Your task to perform on an android device: Go to Maps Image 0: 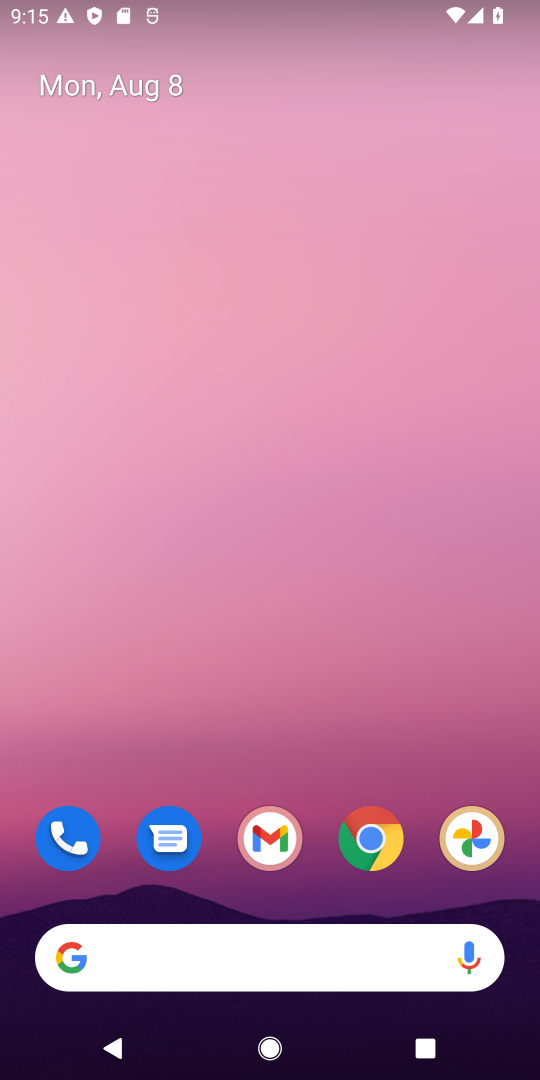
Step 0: press home button
Your task to perform on an android device: Go to Maps Image 1: 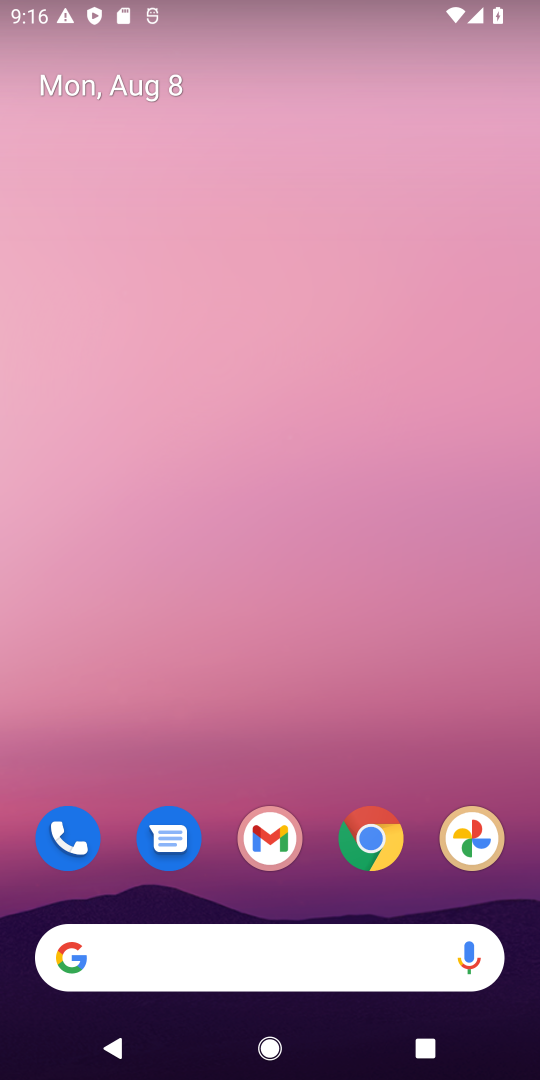
Step 1: click (307, 886)
Your task to perform on an android device: Go to Maps Image 2: 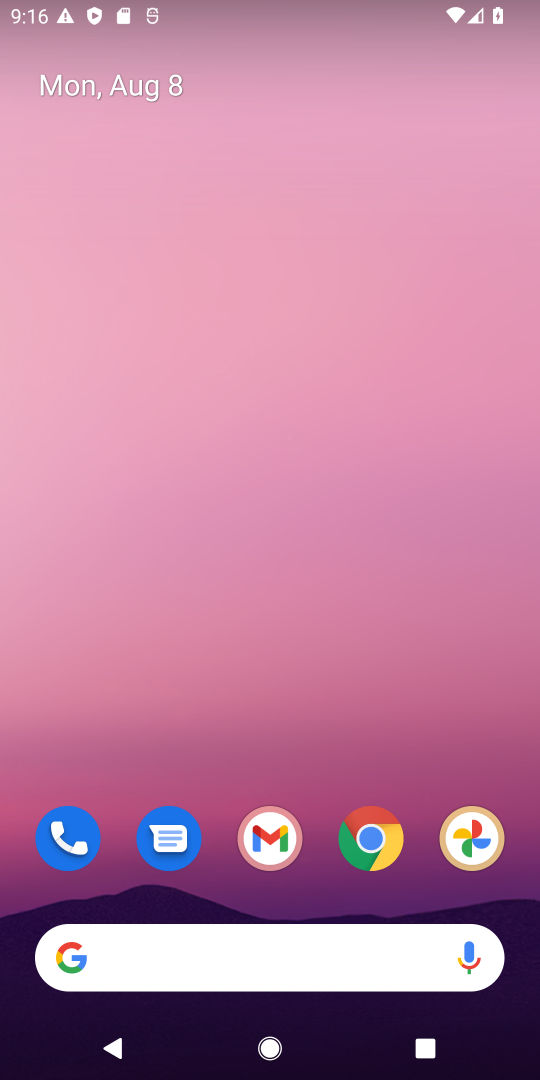
Step 2: drag from (226, 743) to (338, 169)
Your task to perform on an android device: Go to Maps Image 3: 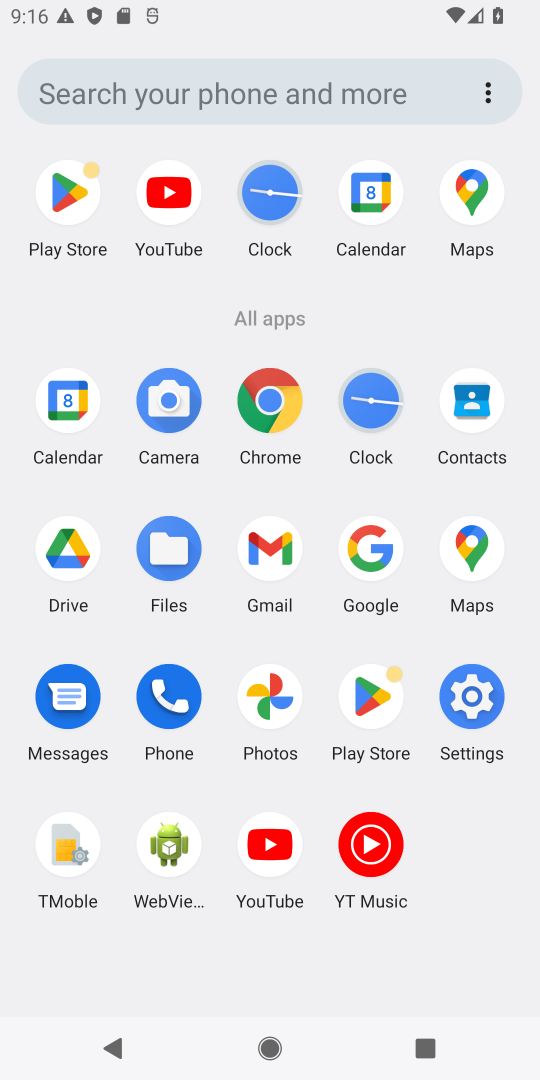
Step 3: click (474, 557)
Your task to perform on an android device: Go to Maps Image 4: 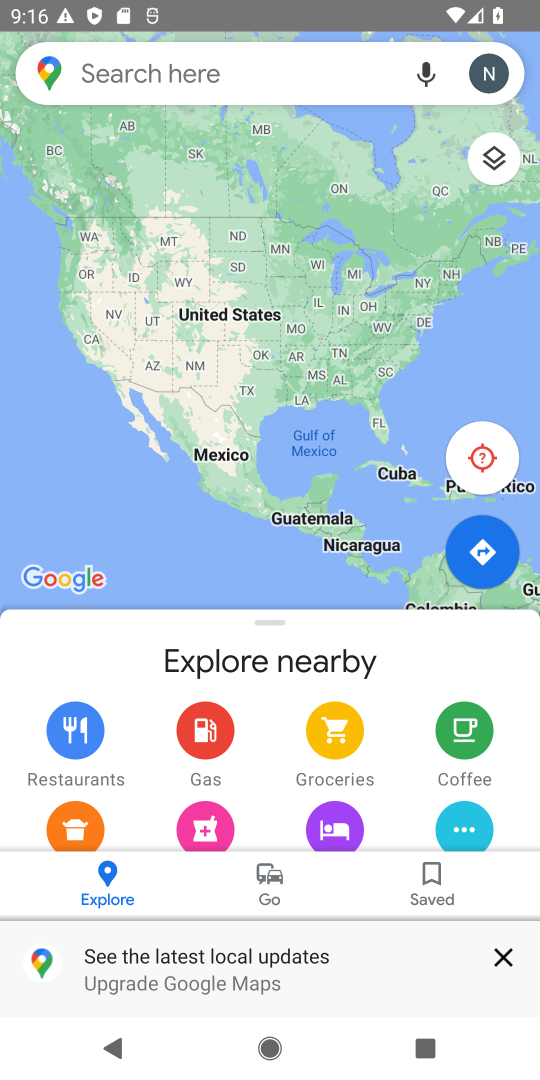
Step 4: task complete